Your task to perform on an android device: Go to privacy settings Image 0: 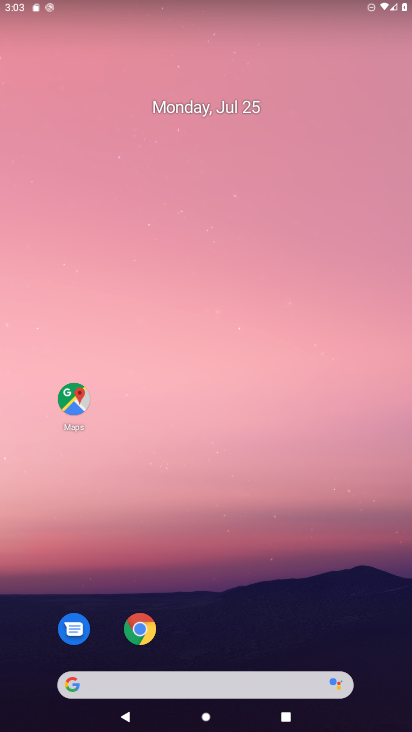
Step 0: drag from (234, 641) to (307, 9)
Your task to perform on an android device: Go to privacy settings Image 1: 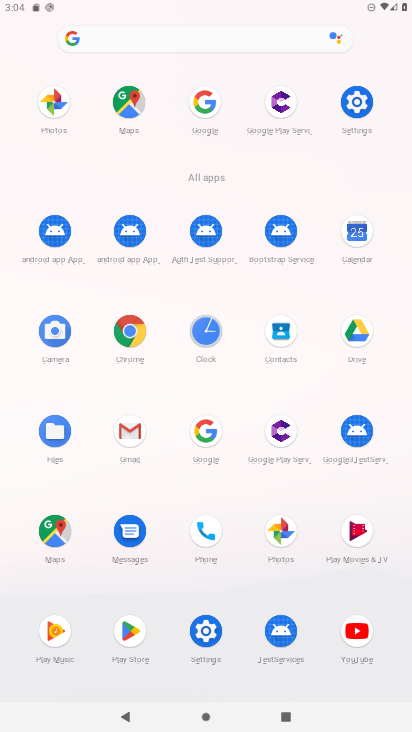
Step 1: click (360, 101)
Your task to perform on an android device: Go to privacy settings Image 2: 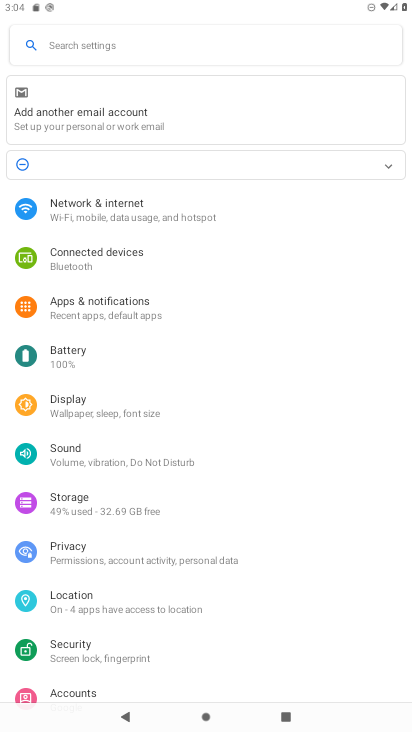
Step 2: click (46, 549)
Your task to perform on an android device: Go to privacy settings Image 3: 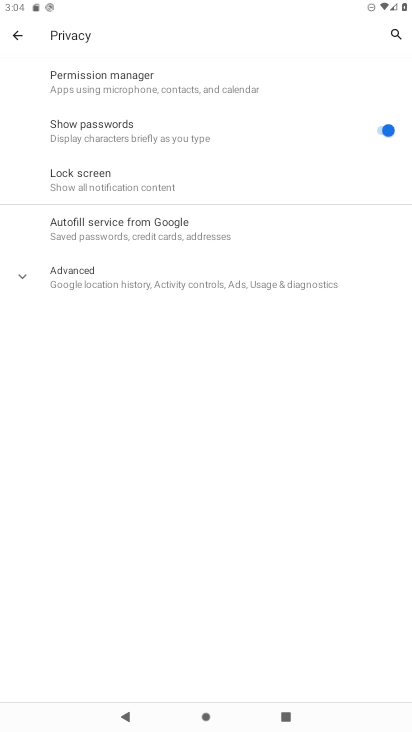
Step 3: task complete